Your task to perform on an android device: Open Amazon Image 0: 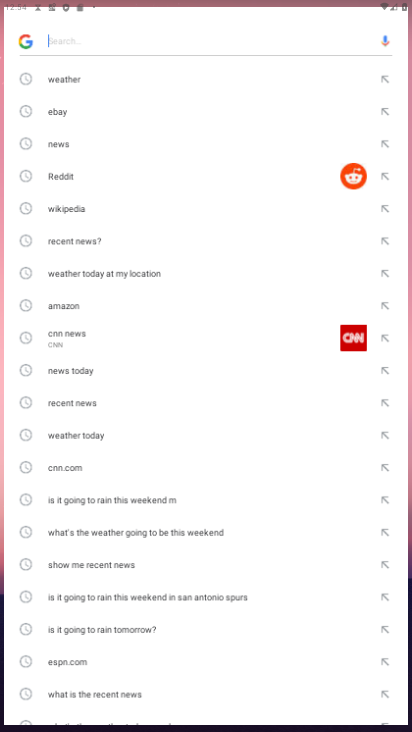
Step 0: drag from (221, 672) to (216, 124)
Your task to perform on an android device: Open Amazon Image 1: 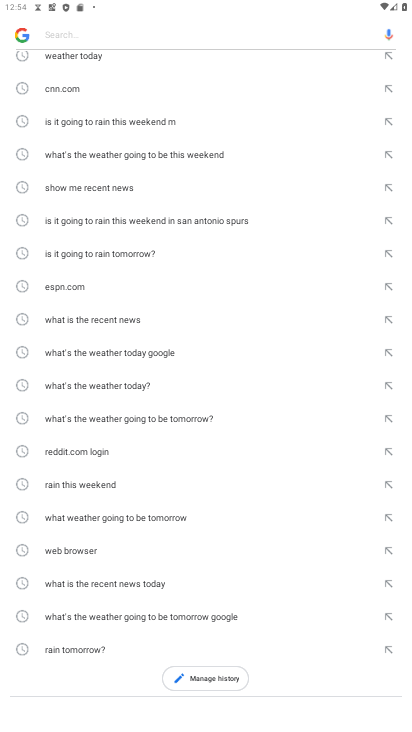
Step 1: press home button
Your task to perform on an android device: Open Amazon Image 2: 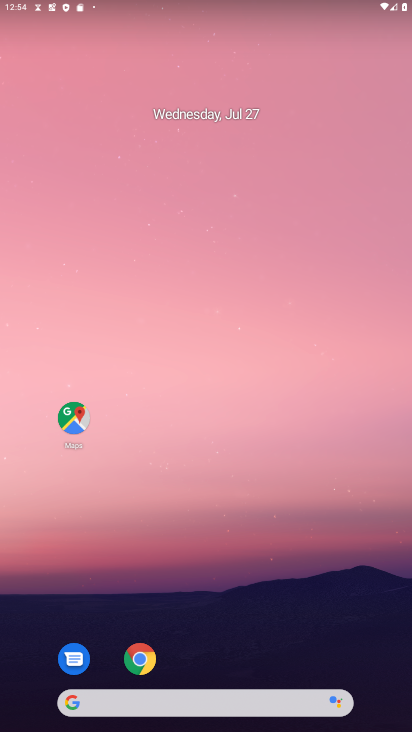
Step 2: click (136, 656)
Your task to perform on an android device: Open Amazon Image 3: 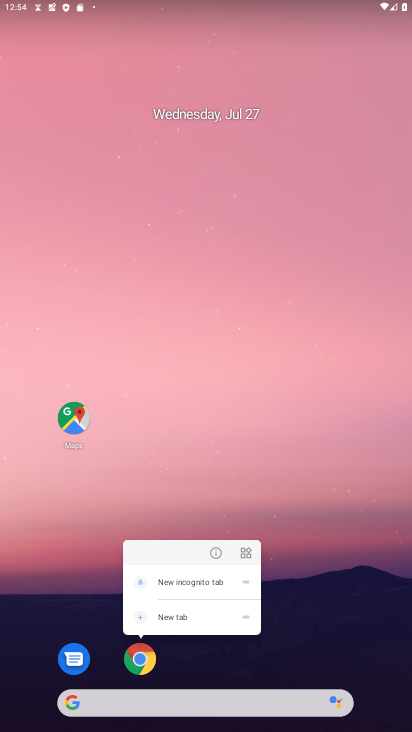
Step 3: click (135, 654)
Your task to perform on an android device: Open Amazon Image 4: 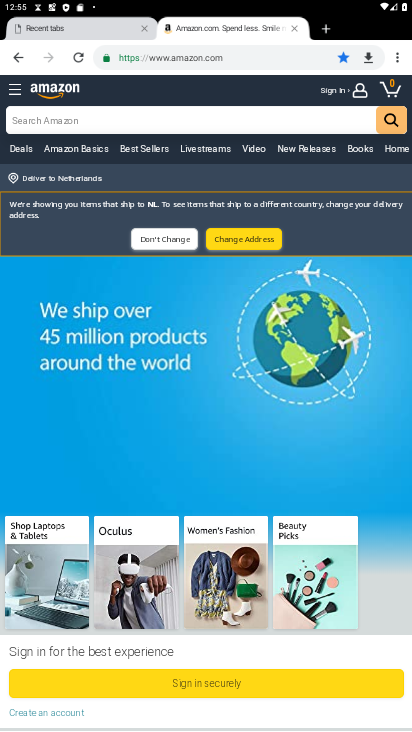
Step 4: task complete